Your task to perform on an android device: Search for "macbook pro" on amazon, select the first entry, add it to the cart, then select checkout. Image 0: 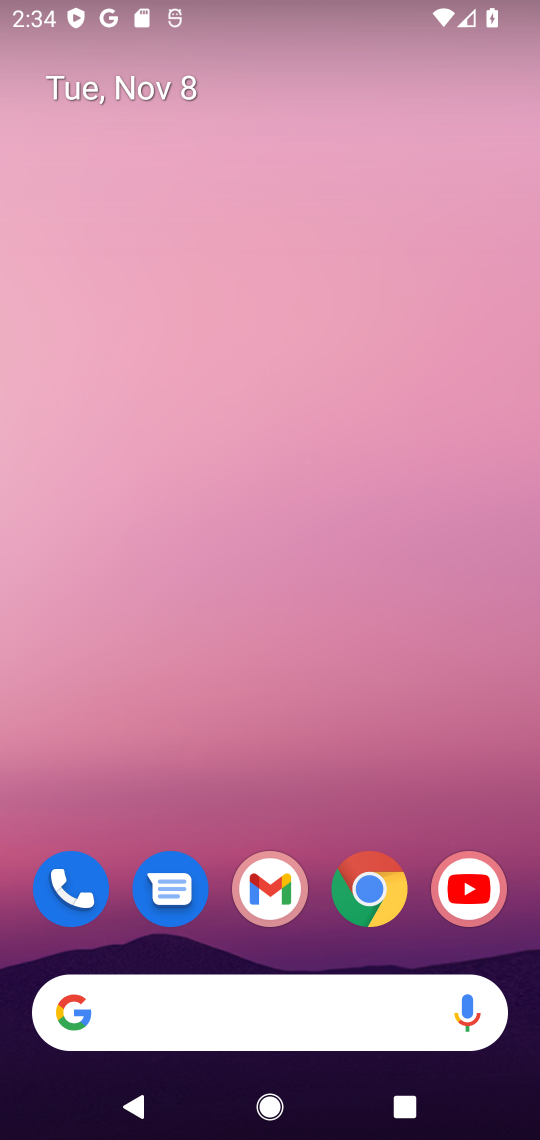
Step 0: click (362, 899)
Your task to perform on an android device: Search for "macbook pro" on amazon, select the first entry, add it to the cart, then select checkout. Image 1: 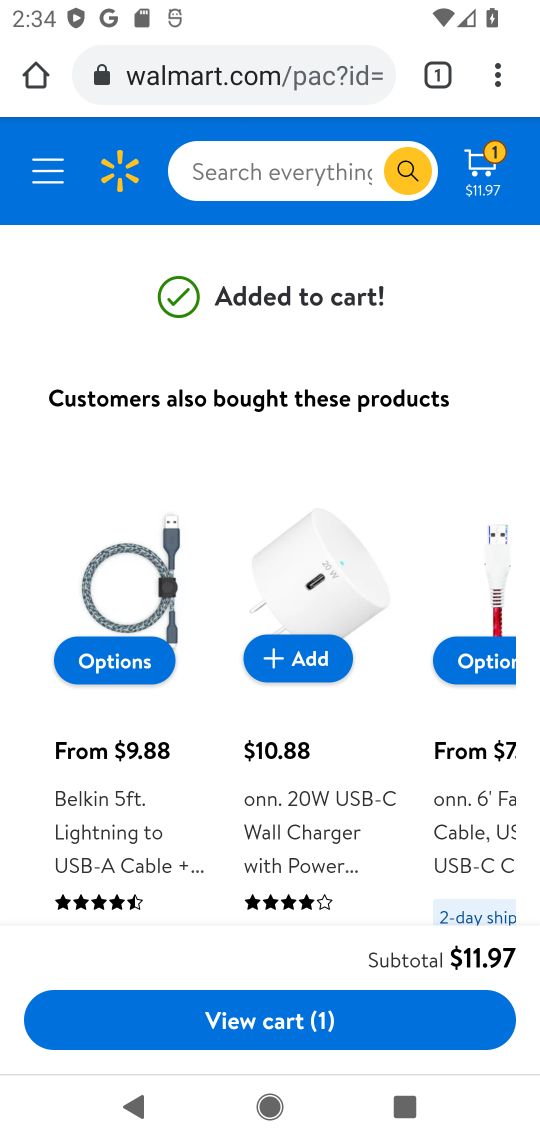
Step 1: click (235, 79)
Your task to perform on an android device: Search for "macbook pro" on amazon, select the first entry, add it to the cart, then select checkout. Image 2: 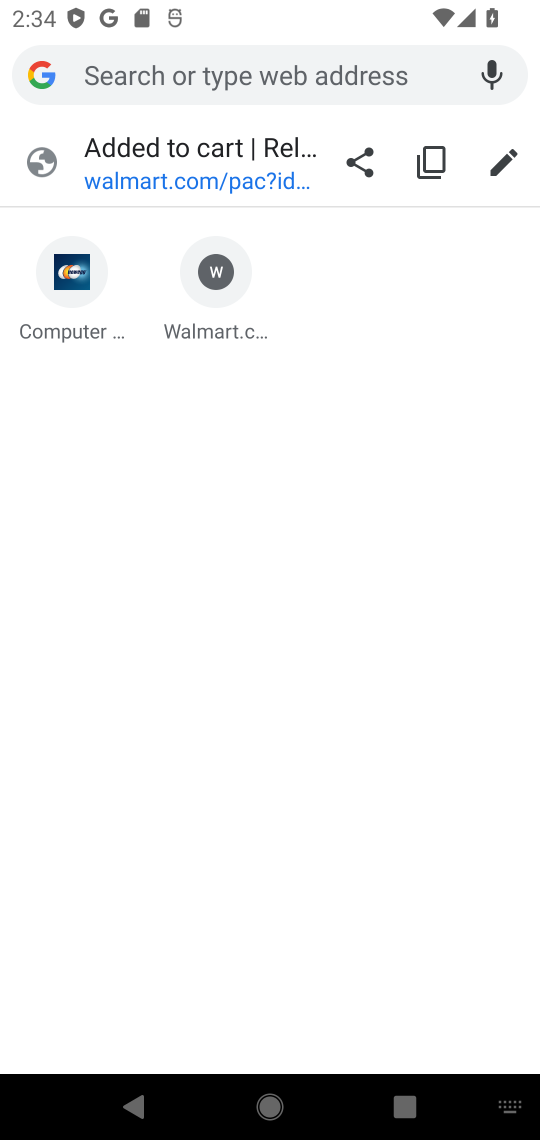
Step 2: type "amazon.com"
Your task to perform on an android device: Search for "macbook pro" on amazon, select the first entry, add it to the cart, then select checkout. Image 3: 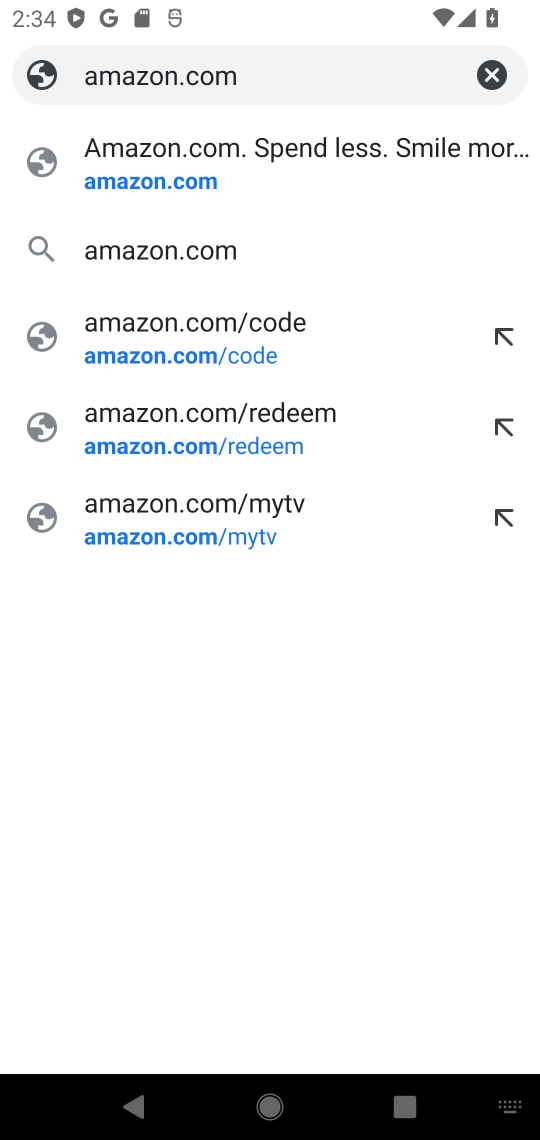
Step 3: click (123, 173)
Your task to perform on an android device: Search for "macbook pro" on amazon, select the first entry, add it to the cart, then select checkout. Image 4: 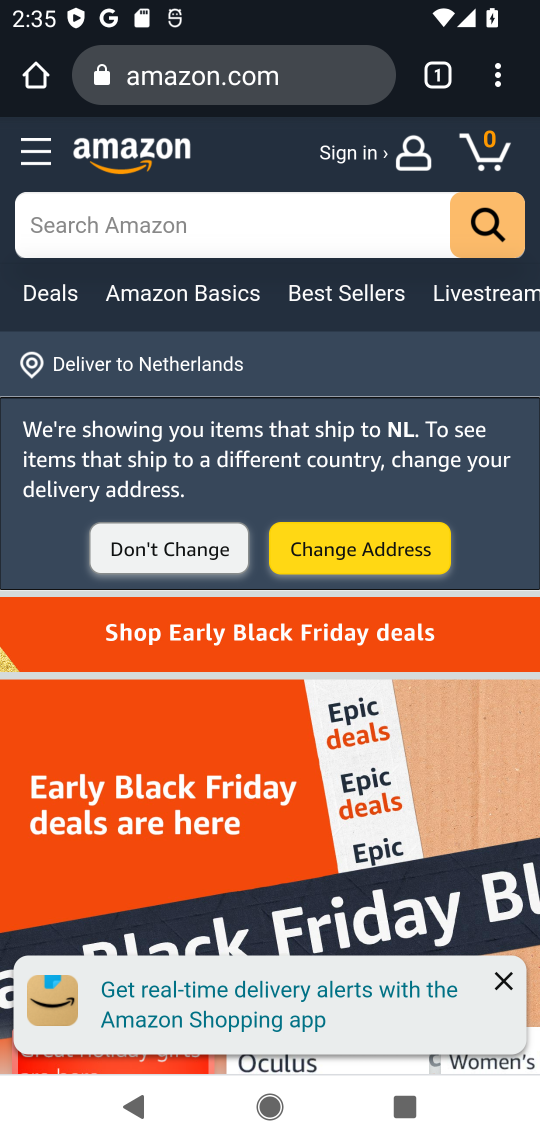
Step 4: click (167, 224)
Your task to perform on an android device: Search for "macbook pro" on amazon, select the first entry, add it to the cart, then select checkout. Image 5: 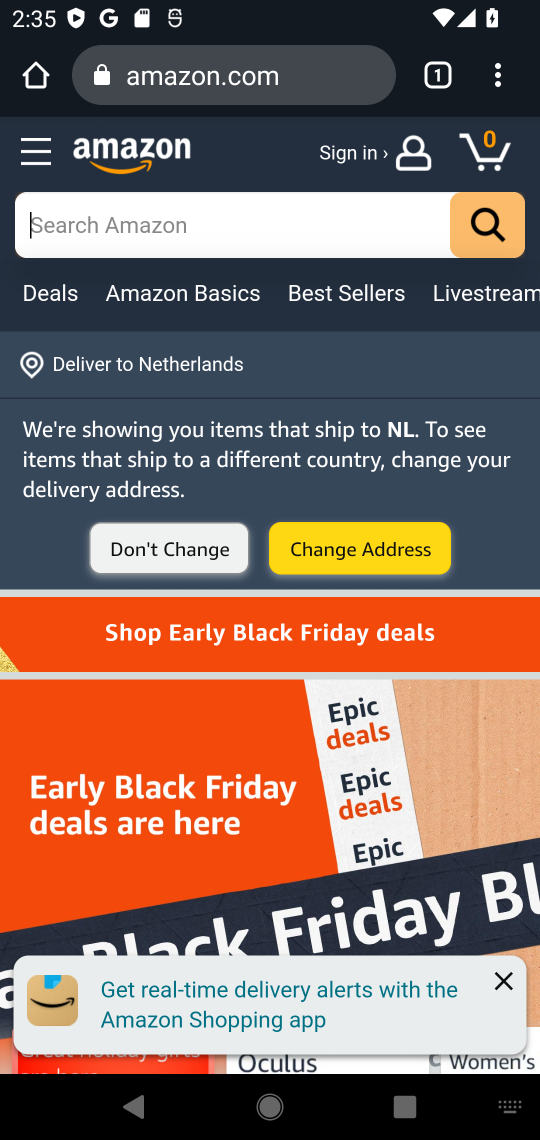
Step 5: type "macbook pro"
Your task to perform on an android device: Search for "macbook pro" on amazon, select the first entry, add it to the cart, then select checkout. Image 6: 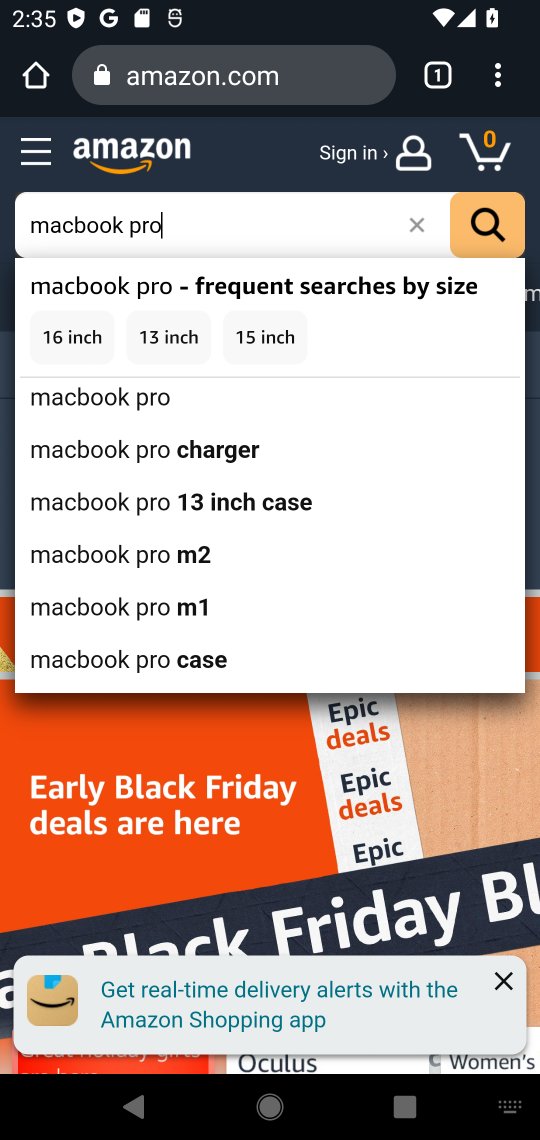
Step 6: click (89, 404)
Your task to perform on an android device: Search for "macbook pro" on amazon, select the first entry, add it to the cart, then select checkout. Image 7: 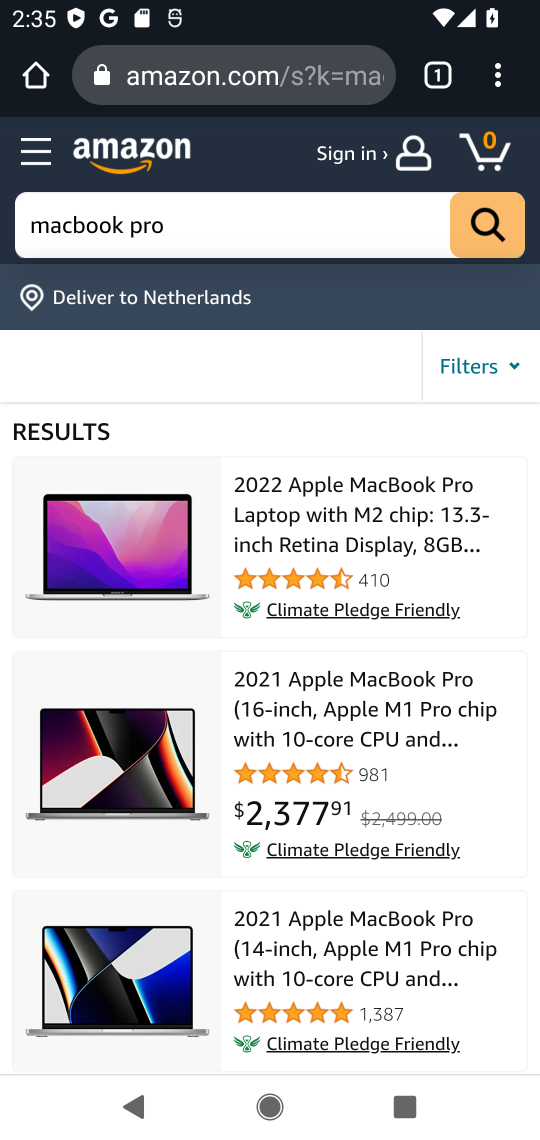
Step 7: click (209, 579)
Your task to perform on an android device: Search for "macbook pro" on amazon, select the first entry, add it to the cart, then select checkout. Image 8: 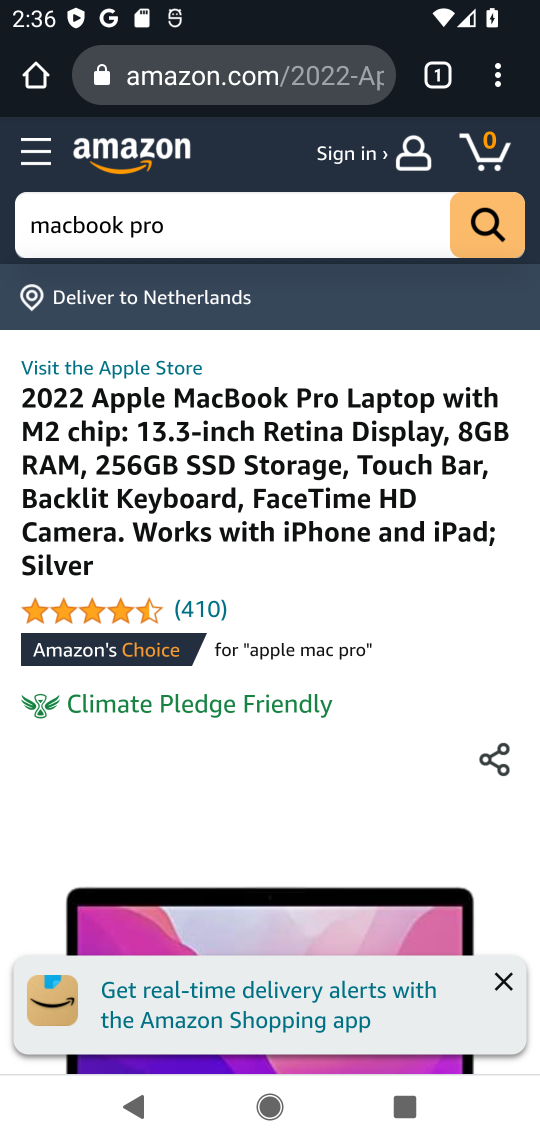
Step 8: task complete